Your task to perform on an android device: change the clock display to show seconds Image 0: 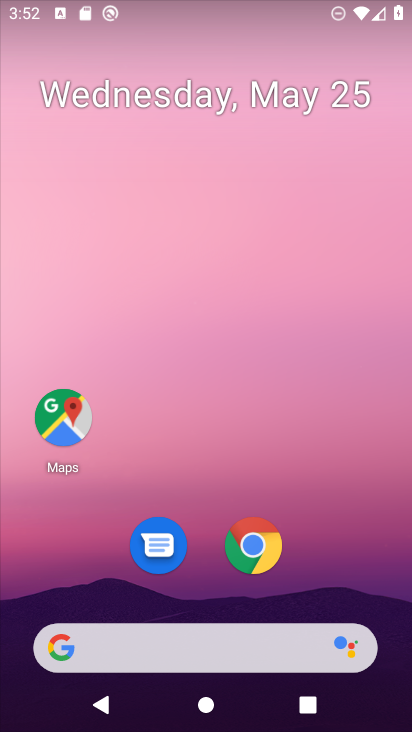
Step 0: drag from (393, 568) to (390, 231)
Your task to perform on an android device: change the clock display to show seconds Image 1: 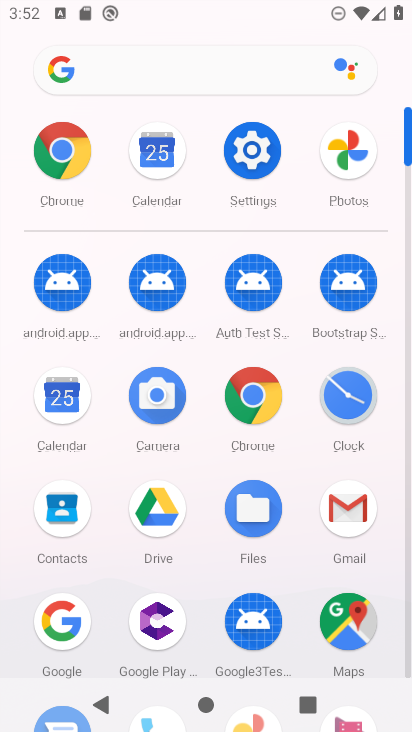
Step 1: click (332, 404)
Your task to perform on an android device: change the clock display to show seconds Image 2: 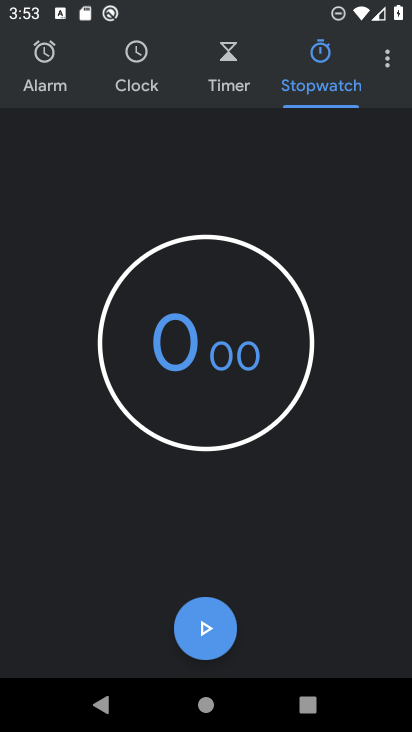
Step 2: click (394, 42)
Your task to perform on an android device: change the clock display to show seconds Image 3: 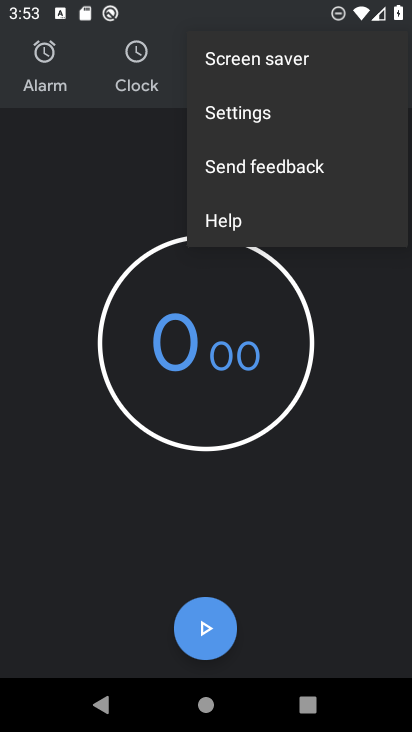
Step 3: click (296, 99)
Your task to perform on an android device: change the clock display to show seconds Image 4: 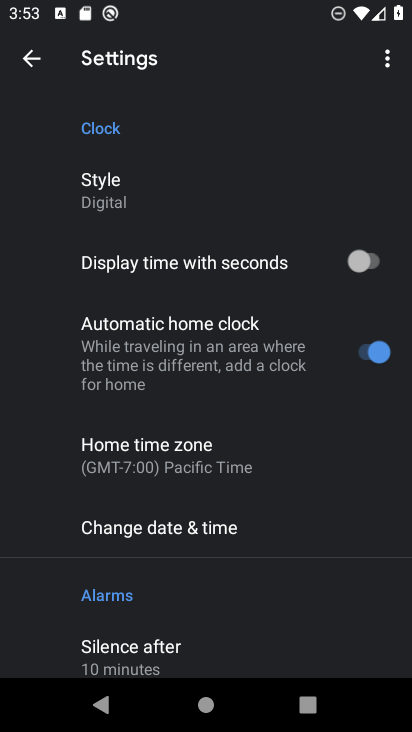
Step 4: click (352, 272)
Your task to perform on an android device: change the clock display to show seconds Image 5: 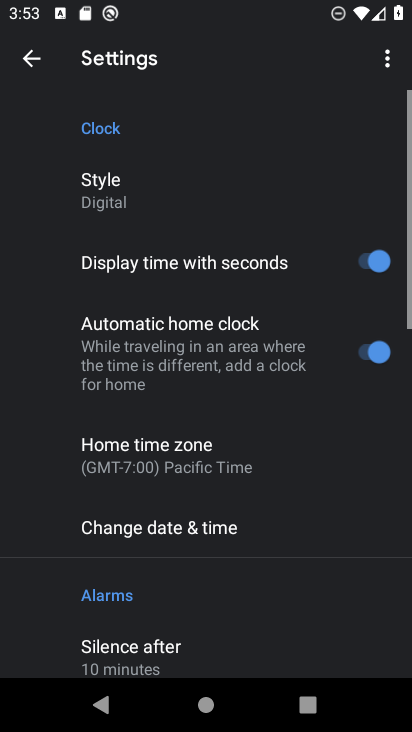
Step 5: task complete